Your task to perform on an android device: turn notification dots on Image 0: 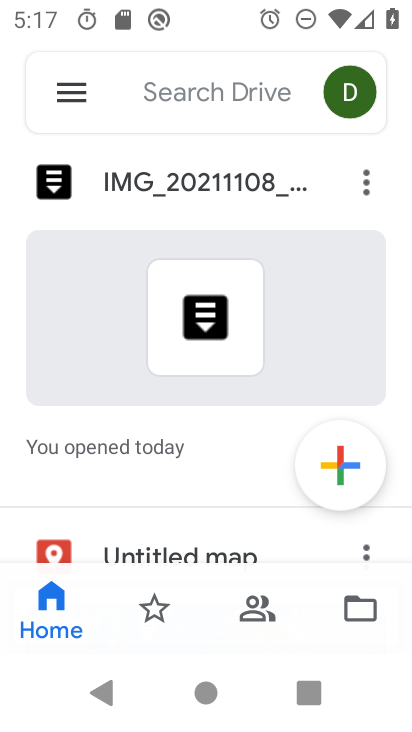
Step 0: press home button
Your task to perform on an android device: turn notification dots on Image 1: 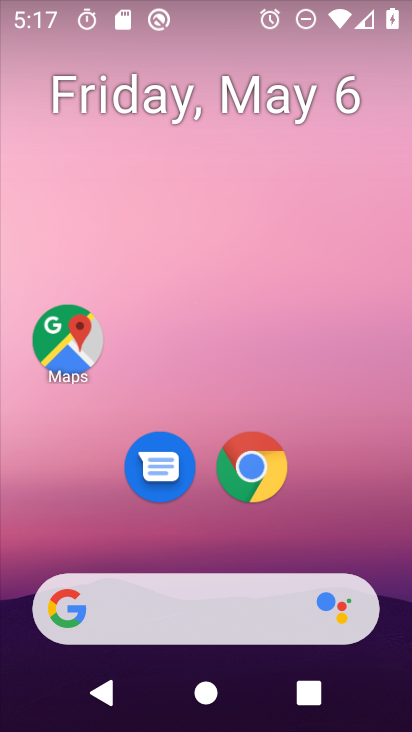
Step 1: drag from (331, 520) to (306, 5)
Your task to perform on an android device: turn notification dots on Image 2: 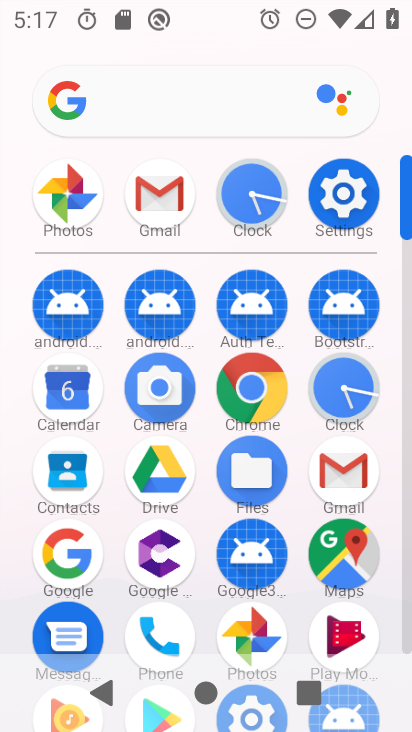
Step 2: click (350, 220)
Your task to perform on an android device: turn notification dots on Image 3: 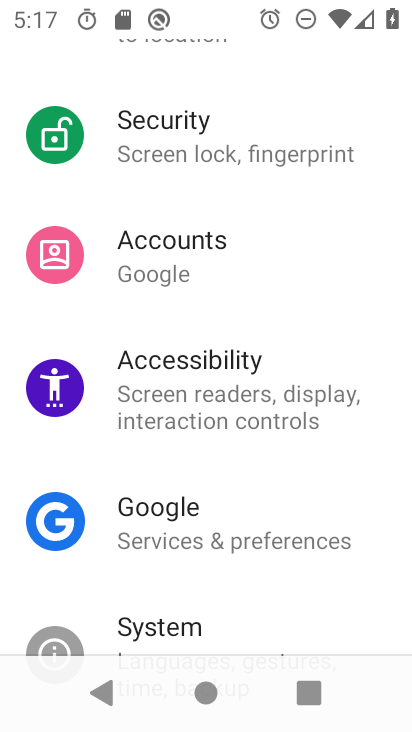
Step 3: drag from (257, 281) to (238, 554)
Your task to perform on an android device: turn notification dots on Image 4: 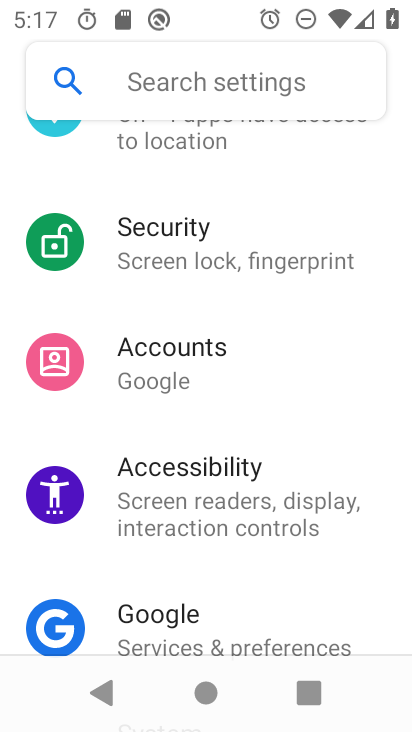
Step 4: drag from (248, 180) to (239, 554)
Your task to perform on an android device: turn notification dots on Image 5: 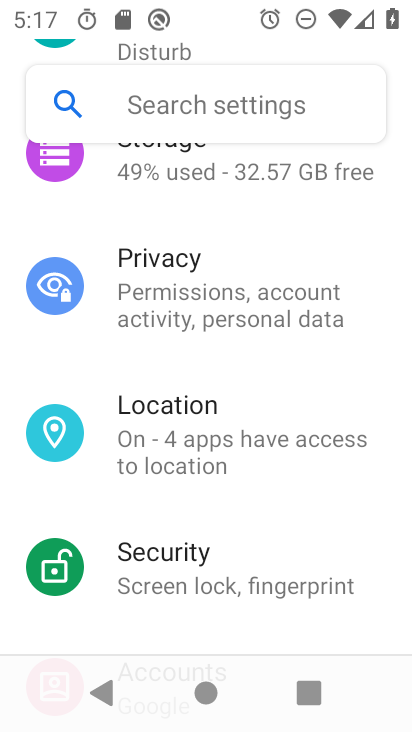
Step 5: drag from (264, 198) to (267, 571)
Your task to perform on an android device: turn notification dots on Image 6: 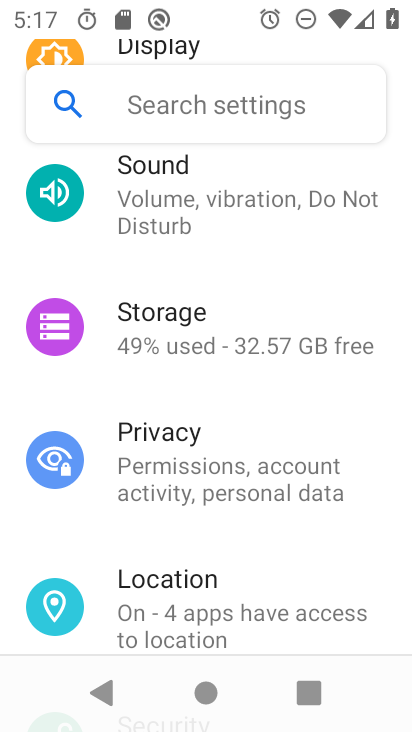
Step 6: drag from (256, 230) to (234, 698)
Your task to perform on an android device: turn notification dots on Image 7: 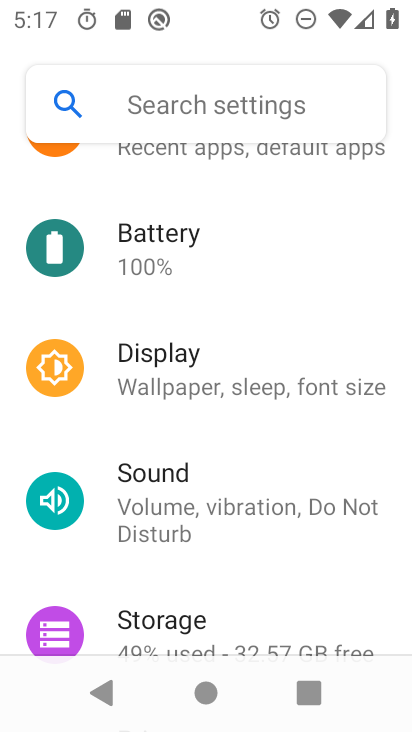
Step 7: drag from (212, 265) to (212, 574)
Your task to perform on an android device: turn notification dots on Image 8: 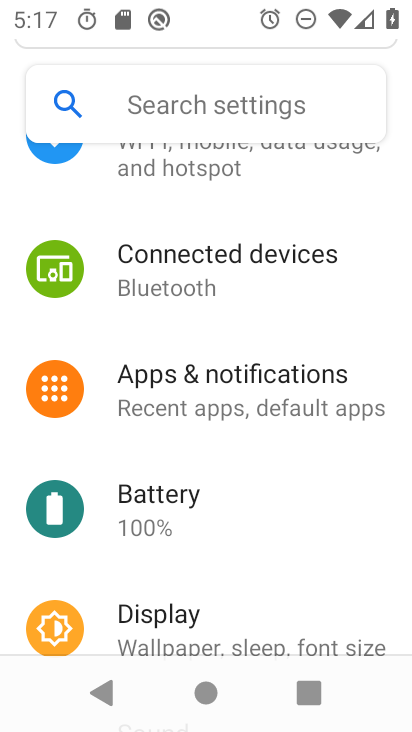
Step 8: click (240, 392)
Your task to perform on an android device: turn notification dots on Image 9: 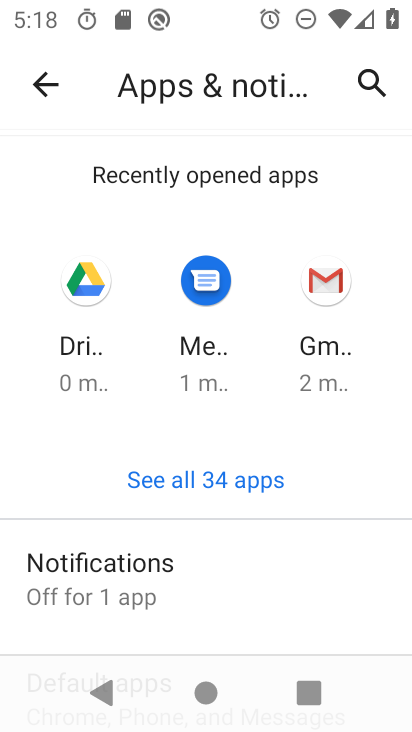
Step 9: drag from (204, 596) to (247, 236)
Your task to perform on an android device: turn notification dots on Image 10: 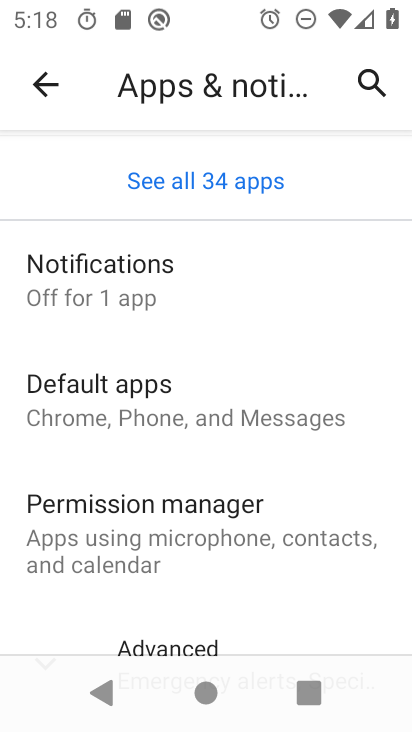
Step 10: click (118, 286)
Your task to perform on an android device: turn notification dots on Image 11: 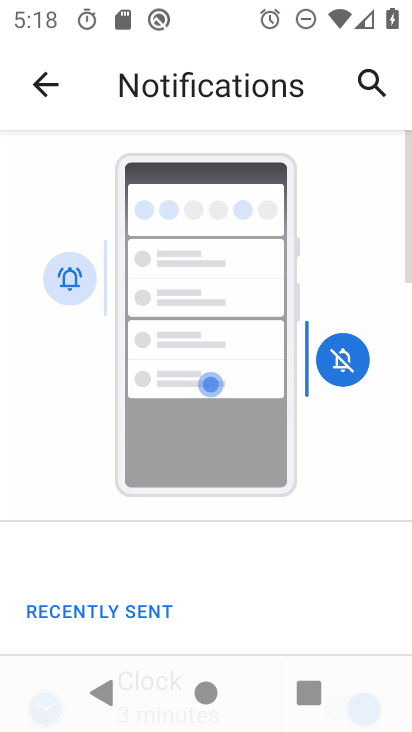
Step 11: click (118, 283)
Your task to perform on an android device: turn notification dots on Image 12: 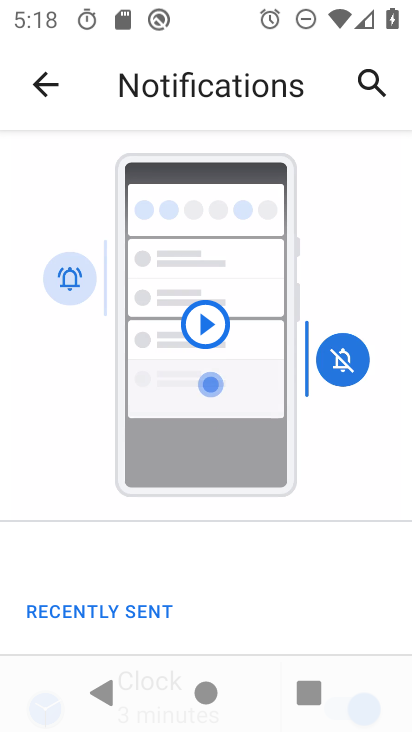
Step 12: drag from (205, 592) to (345, 156)
Your task to perform on an android device: turn notification dots on Image 13: 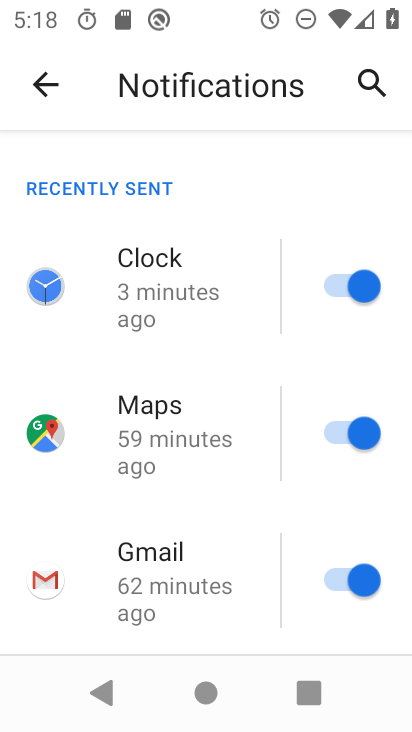
Step 13: drag from (226, 492) to (329, 123)
Your task to perform on an android device: turn notification dots on Image 14: 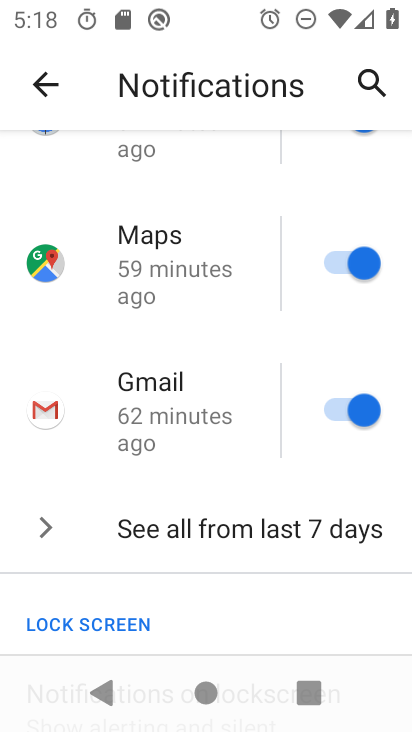
Step 14: drag from (223, 575) to (241, 196)
Your task to perform on an android device: turn notification dots on Image 15: 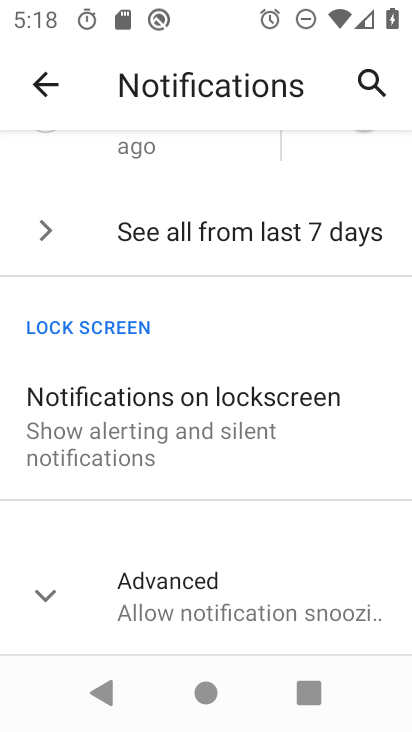
Step 15: click (164, 605)
Your task to perform on an android device: turn notification dots on Image 16: 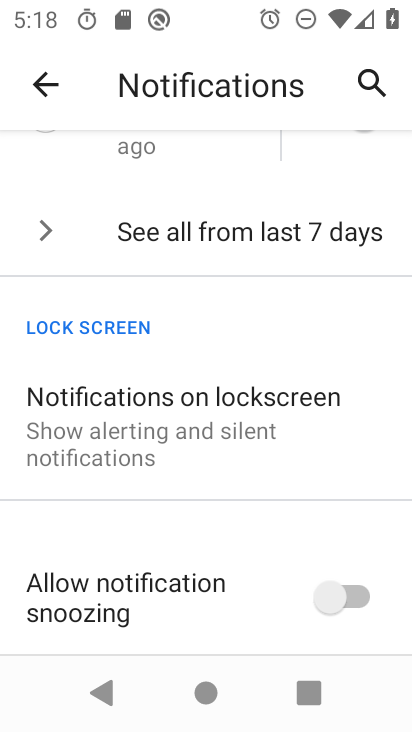
Step 16: drag from (179, 603) to (212, 287)
Your task to perform on an android device: turn notification dots on Image 17: 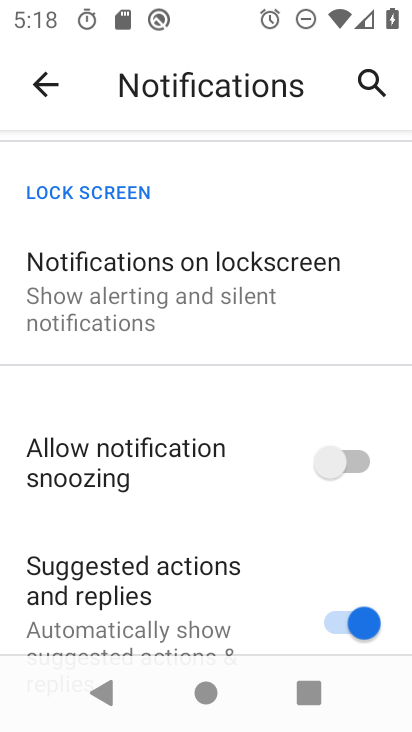
Step 17: drag from (261, 615) to (303, 311)
Your task to perform on an android device: turn notification dots on Image 18: 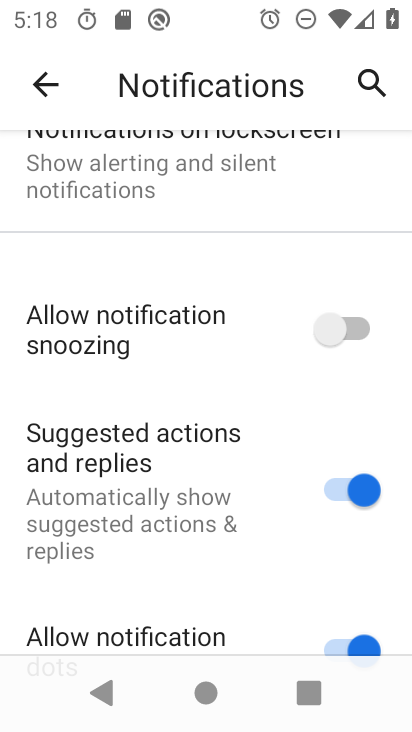
Step 18: drag from (287, 380) to (325, 242)
Your task to perform on an android device: turn notification dots on Image 19: 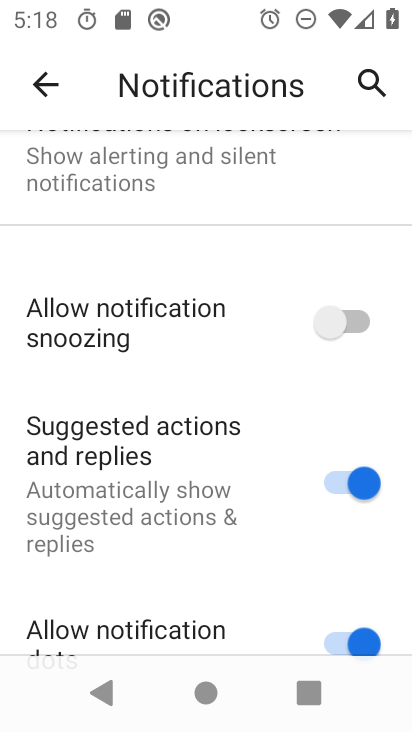
Step 19: click (209, 658)
Your task to perform on an android device: turn notification dots on Image 20: 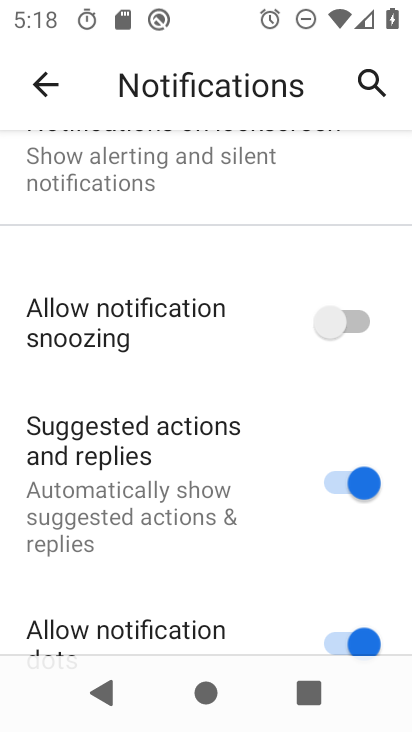
Step 20: task complete